Your task to perform on an android device: Search for the new Jordans on Nike.com Image 0: 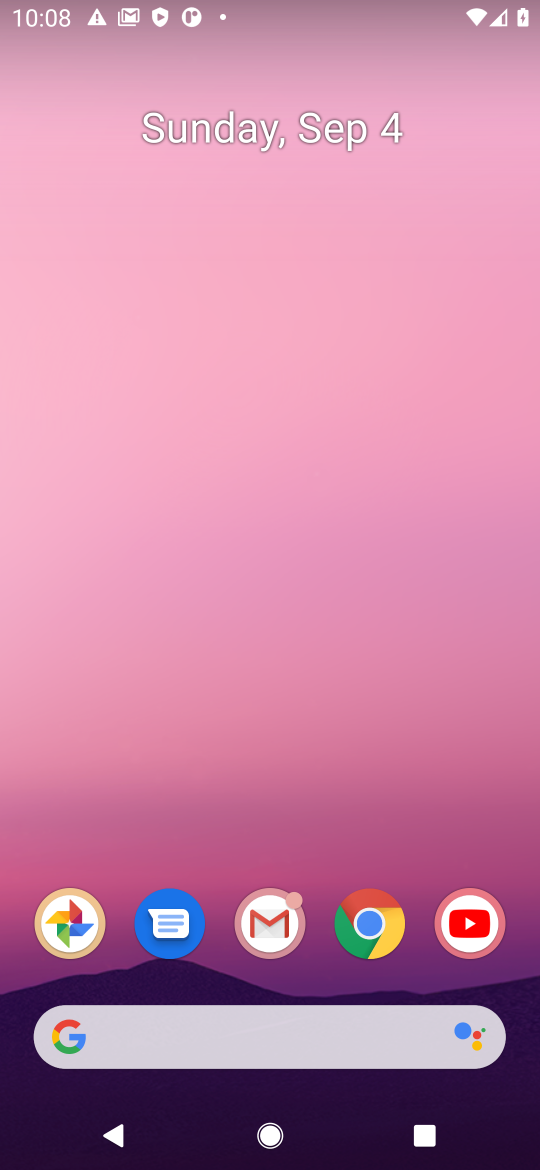
Step 0: click (369, 1034)
Your task to perform on an android device: Search for the new Jordans on Nike.com Image 1: 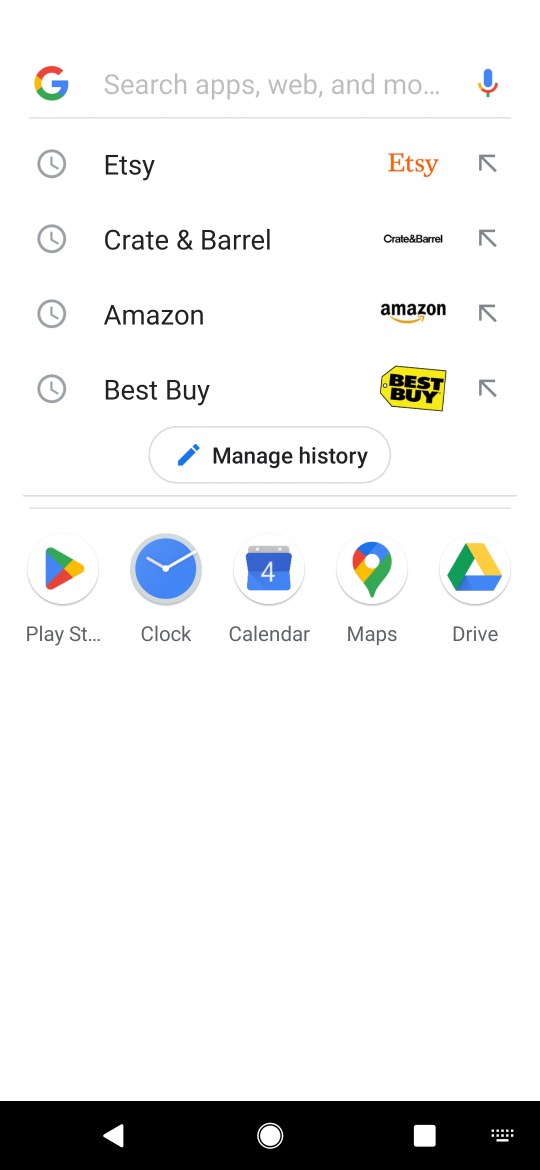
Step 1: press enter
Your task to perform on an android device: Search for the new Jordans on Nike.com Image 2: 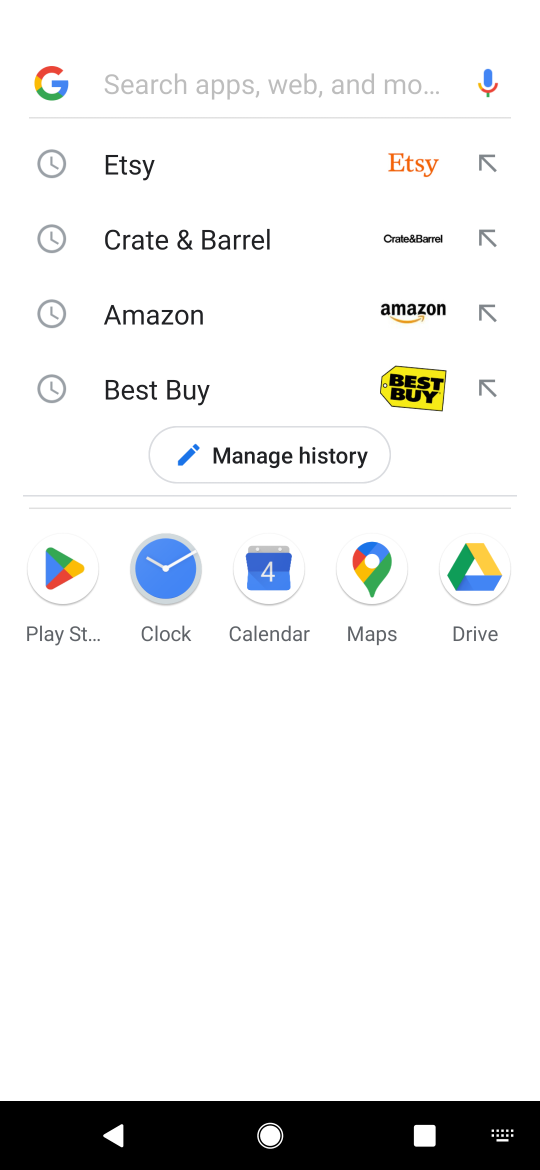
Step 2: type "nike.com"
Your task to perform on an android device: Search for the new Jordans on Nike.com Image 3: 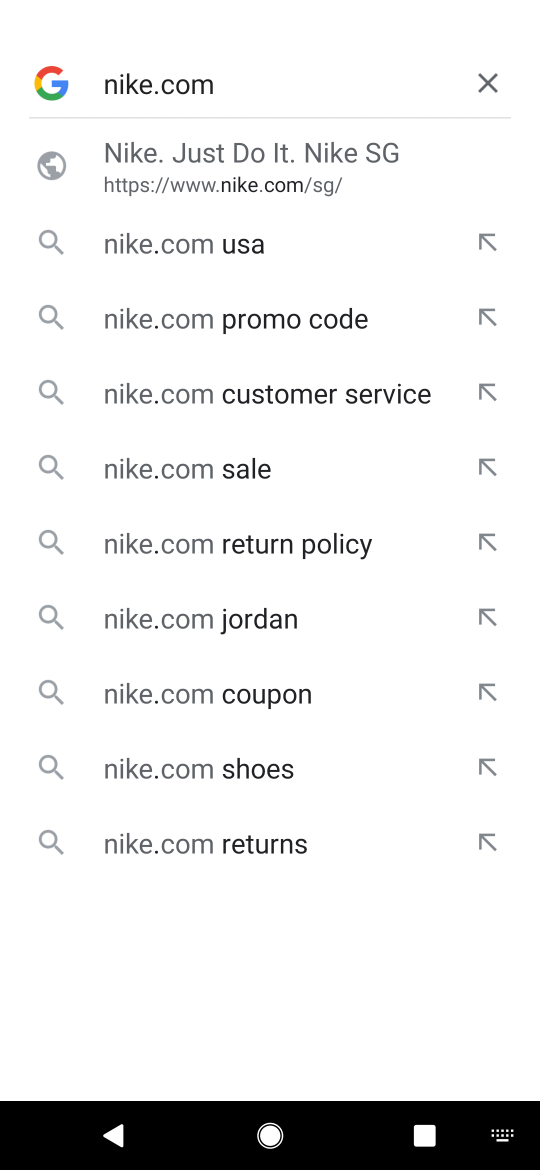
Step 3: click (341, 156)
Your task to perform on an android device: Search for the new Jordans on Nike.com Image 4: 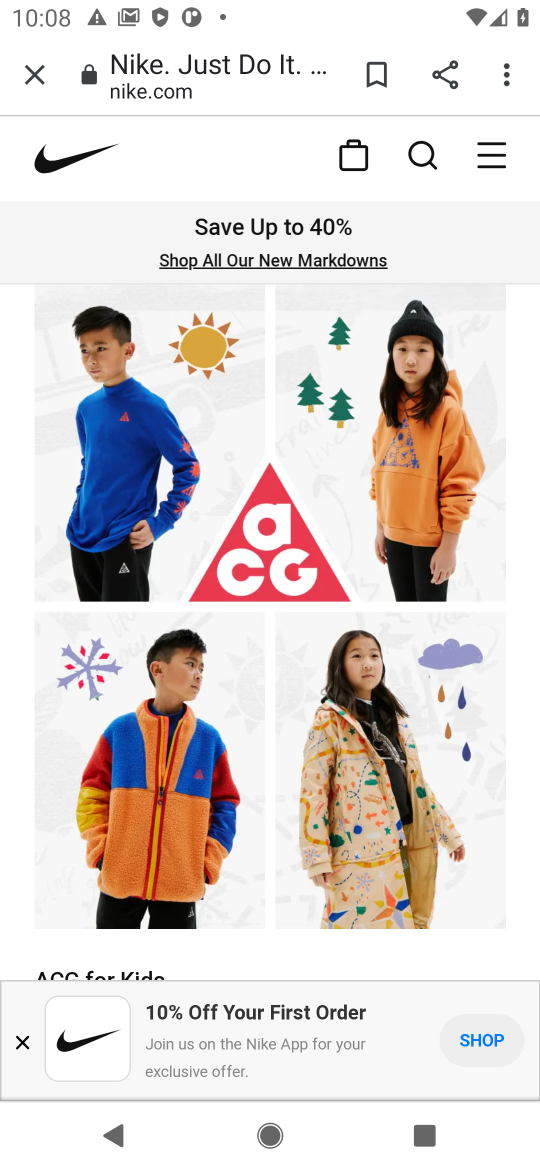
Step 4: click (428, 153)
Your task to perform on an android device: Search for the new Jordans on Nike.com Image 5: 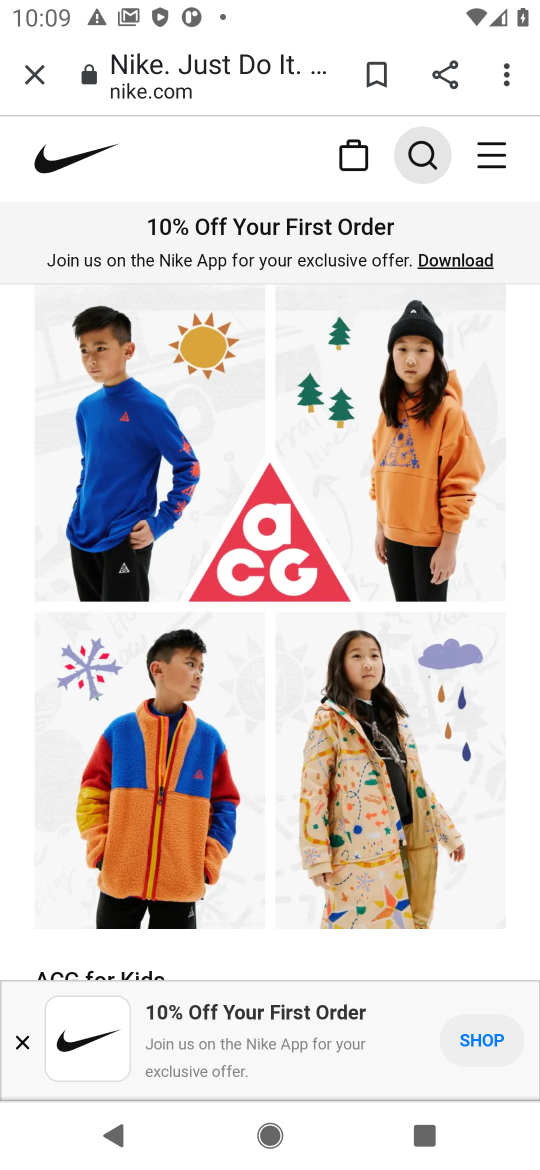
Step 5: click (415, 157)
Your task to perform on an android device: Search for the new Jordans on Nike.com Image 6: 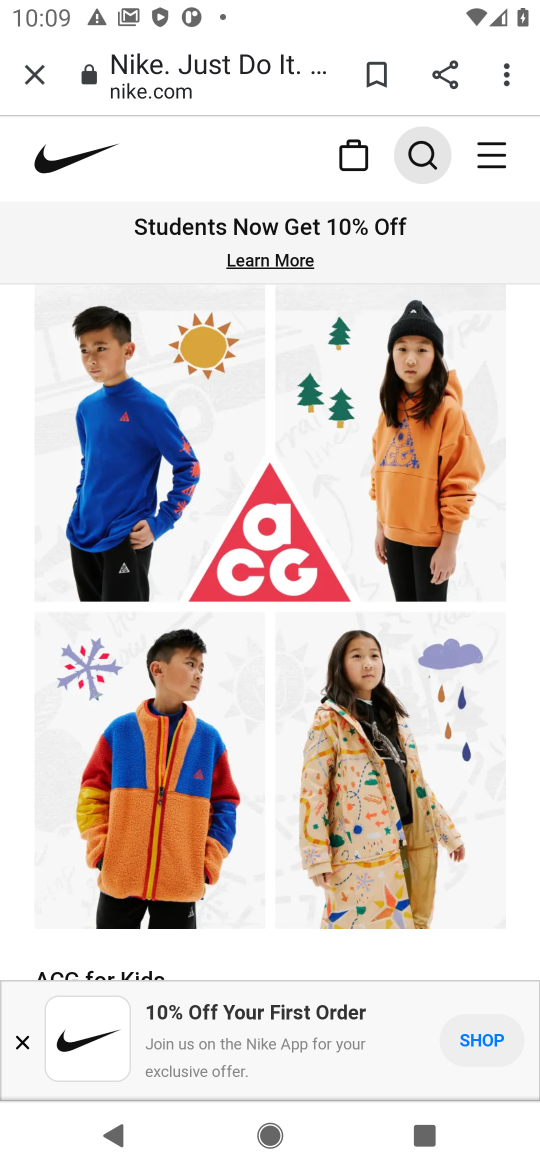
Step 6: click (415, 145)
Your task to perform on an android device: Search for the new Jordans on Nike.com Image 7: 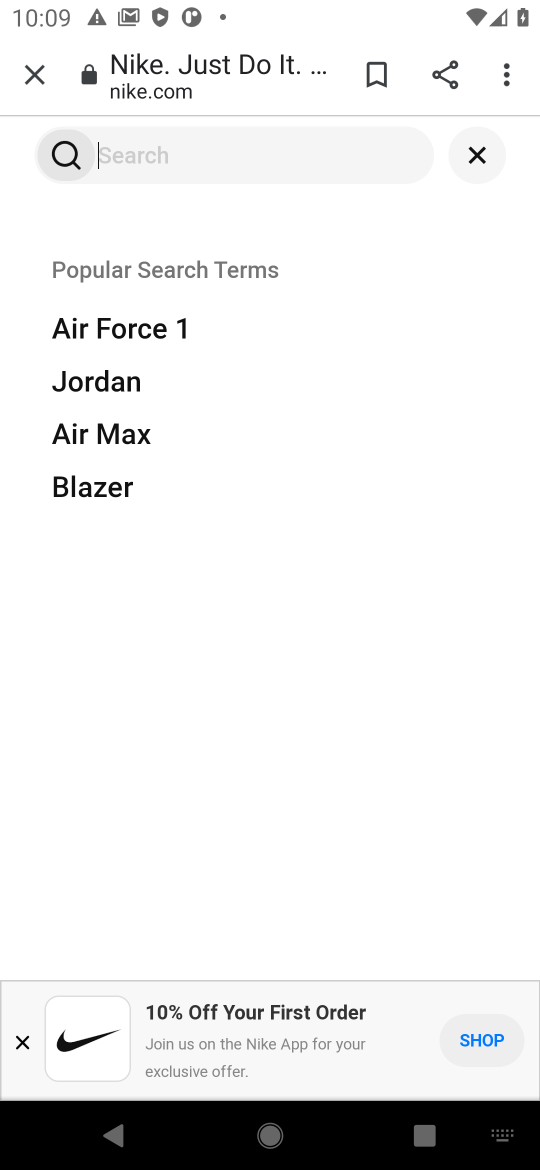
Step 7: click (133, 387)
Your task to perform on an android device: Search for the new Jordans on Nike.com Image 8: 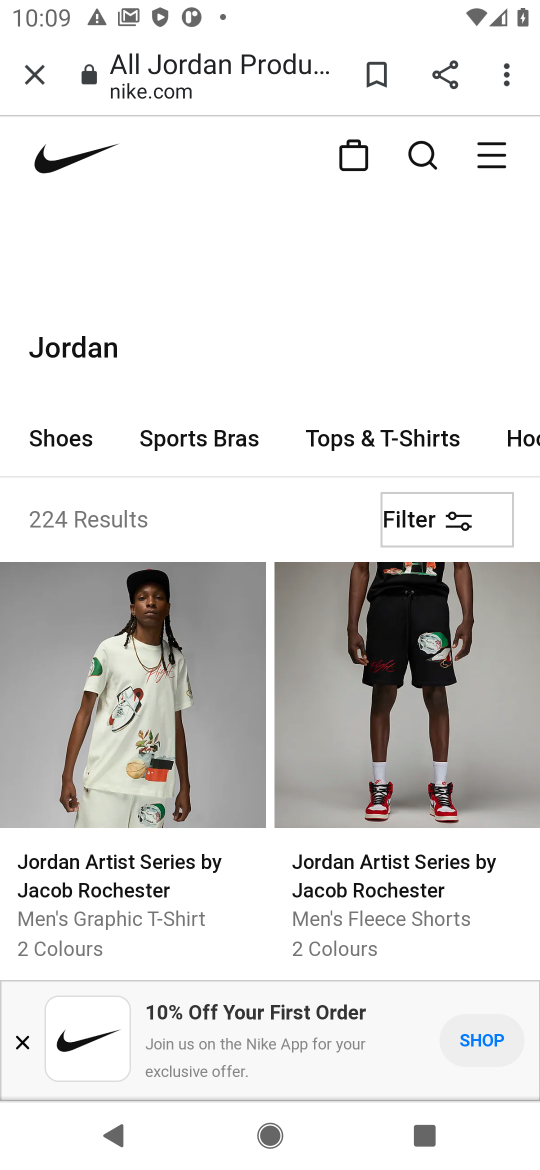
Step 8: task complete